Your task to perform on an android device: turn notification dots off Image 0: 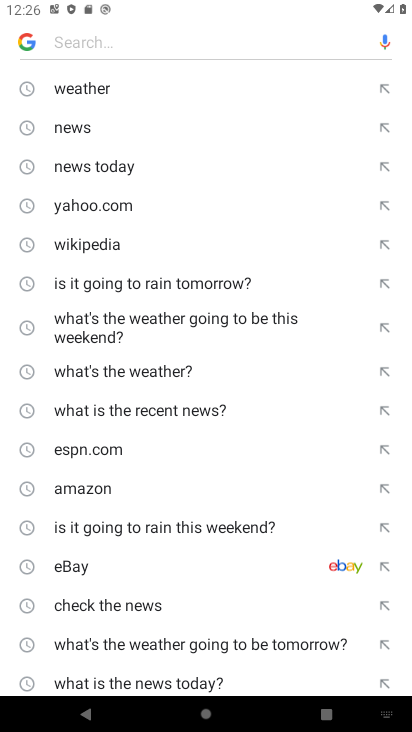
Step 0: press home button
Your task to perform on an android device: turn notification dots off Image 1: 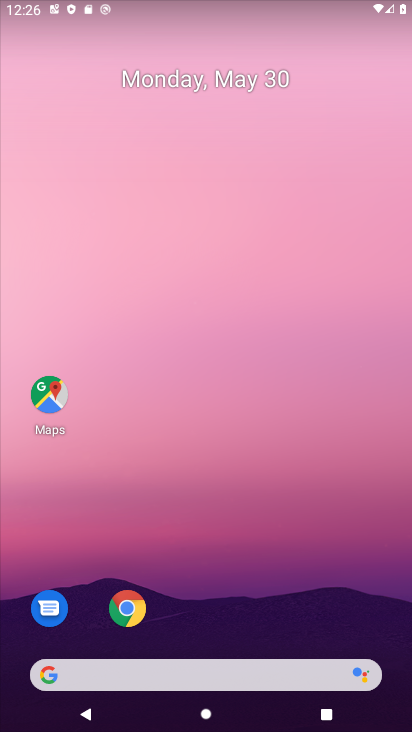
Step 1: drag from (290, 566) to (303, 20)
Your task to perform on an android device: turn notification dots off Image 2: 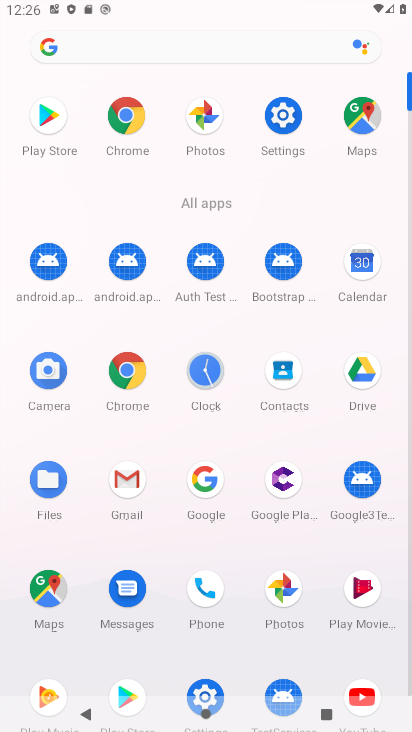
Step 2: click (291, 118)
Your task to perform on an android device: turn notification dots off Image 3: 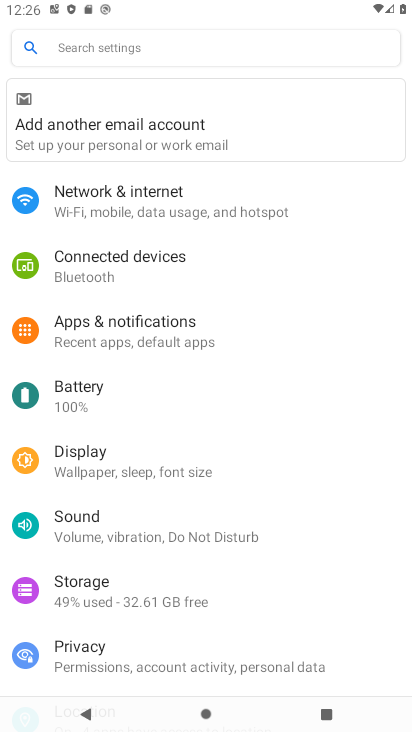
Step 3: click (288, 114)
Your task to perform on an android device: turn notification dots off Image 4: 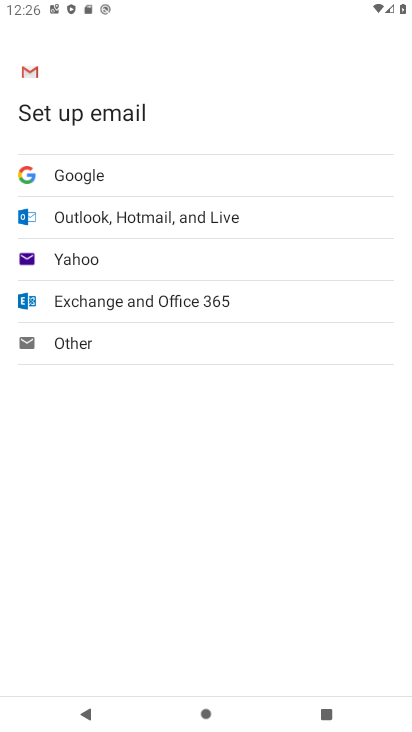
Step 4: press home button
Your task to perform on an android device: turn notification dots off Image 5: 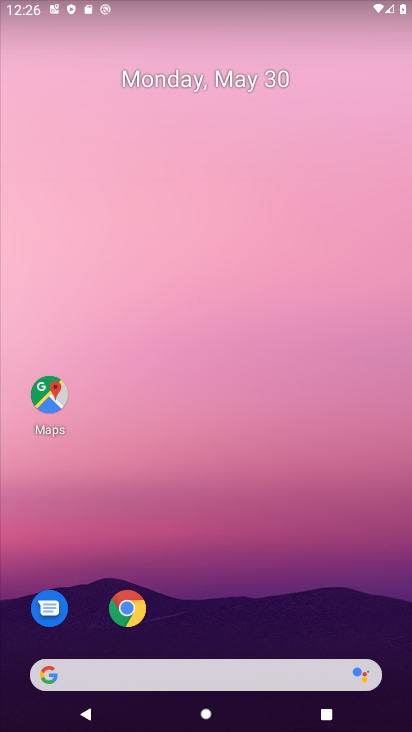
Step 5: drag from (248, 574) to (320, 41)
Your task to perform on an android device: turn notification dots off Image 6: 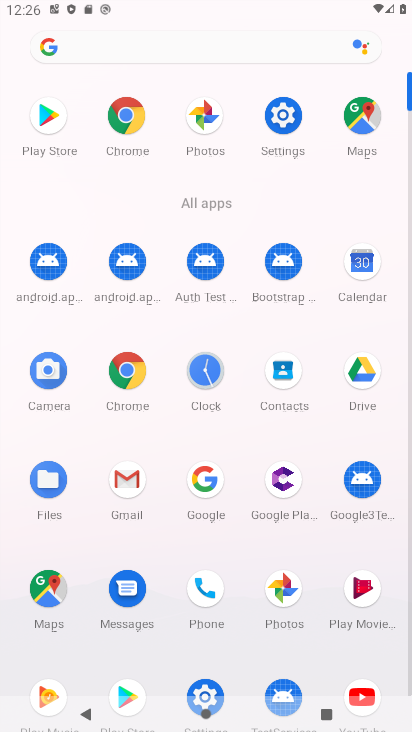
Step 6: click (279, 109)
Your task to perform on an android device: turn notification dots off Image 7: 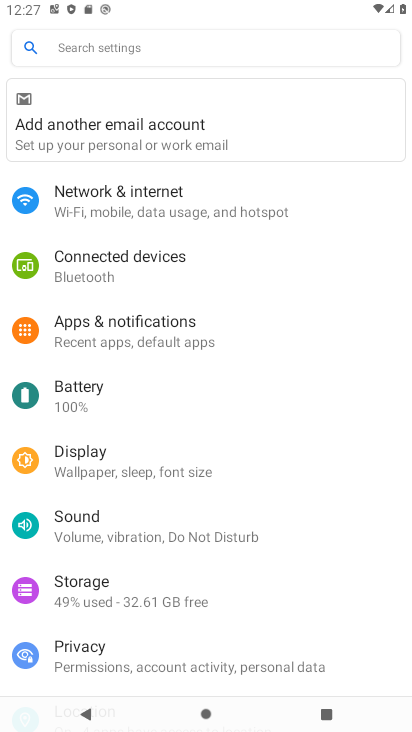
Step 7: click (136, 344)
Your task to perform on an android device: turn notification dots off Image 8: 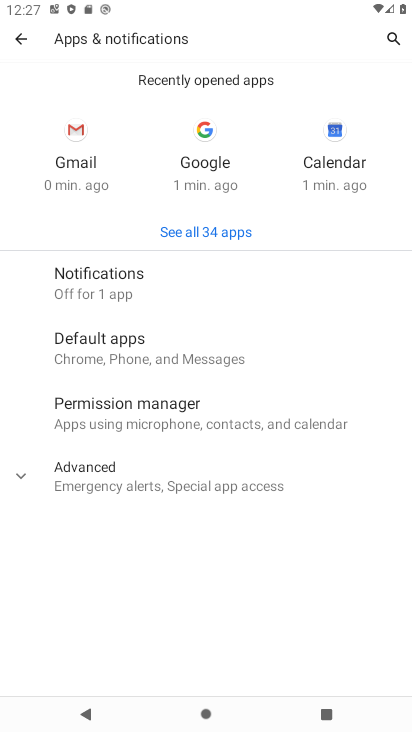
Step 8: click (117, 266)
Your task to perform on an android device: turn notification dots off Image 9: 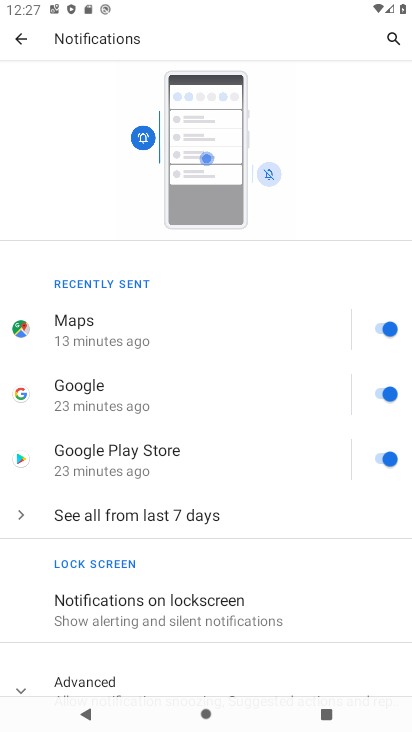
Step 9: drag from (181, 584) to (254, 221)
Your task to perform on an android device: turn notification dots off Image 10: 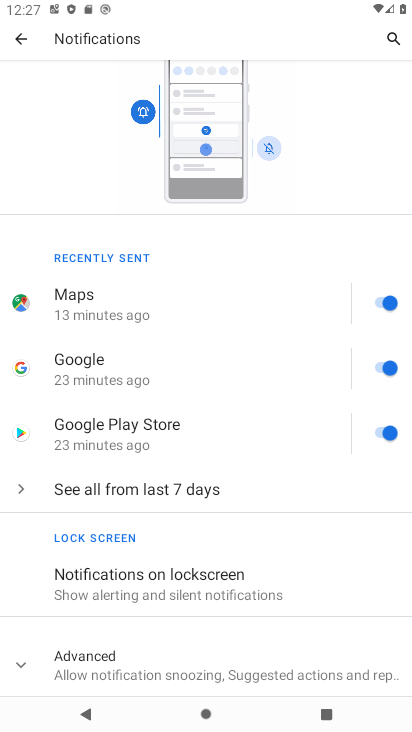
Step 10: click (167, 671)
Your task to perform on an android device: turn notification dots off Image 11: 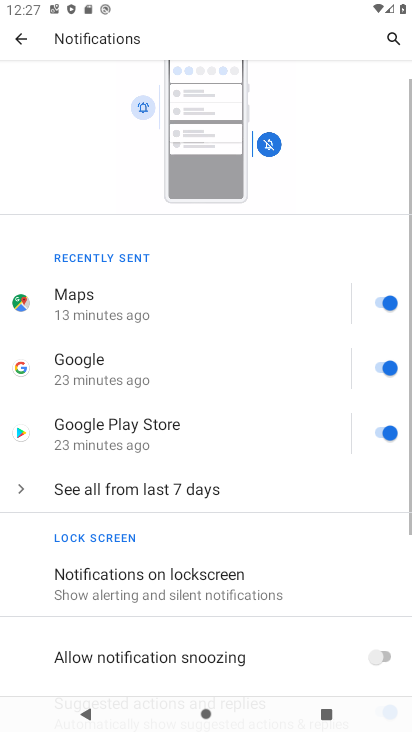
Step 11: task complete